Your task to perform on an android device: find which apps use the phone's location Image 0: 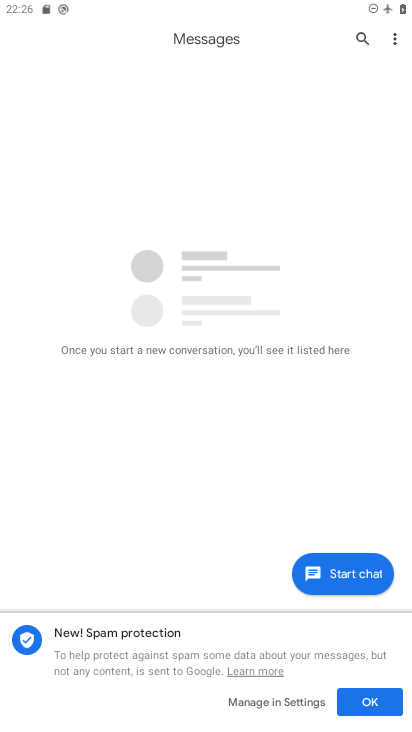
Step 0: press home button
Your task to perform on an android device: find which apps use the phone's location Image 1: 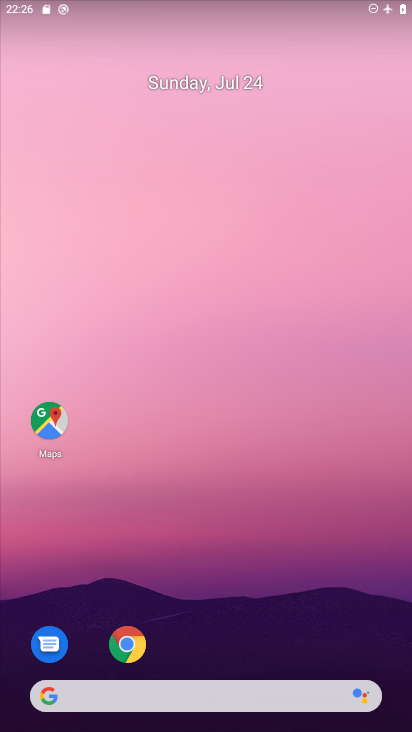
Step 1: drag from (344, 648) to (318, 73)
Your task to perform on an android device: find which apps use the phone's location Image 2: 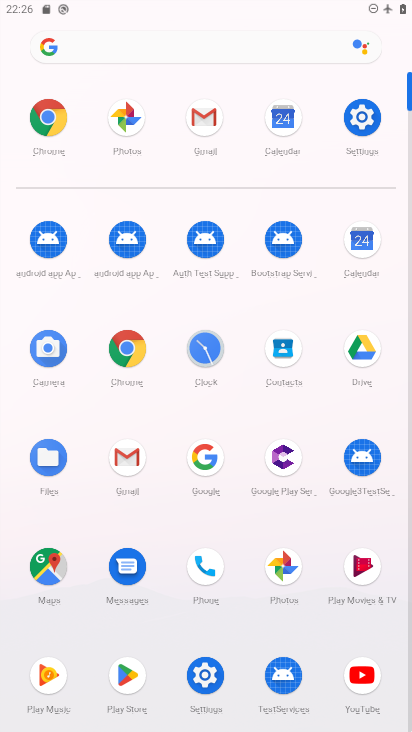
Step 2: click (205, 674)
Your task to perform on an android device: find which apps use the phone's location Image 3: 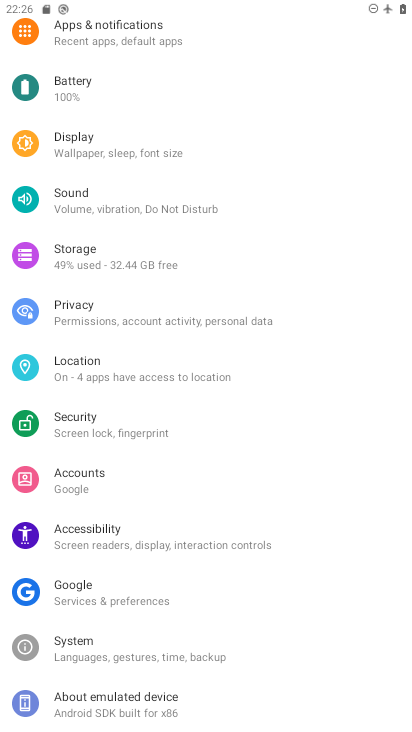
Step 3: click (71, 362)
Your task to perform on an android device: find which apps use the phone's location Image 4: 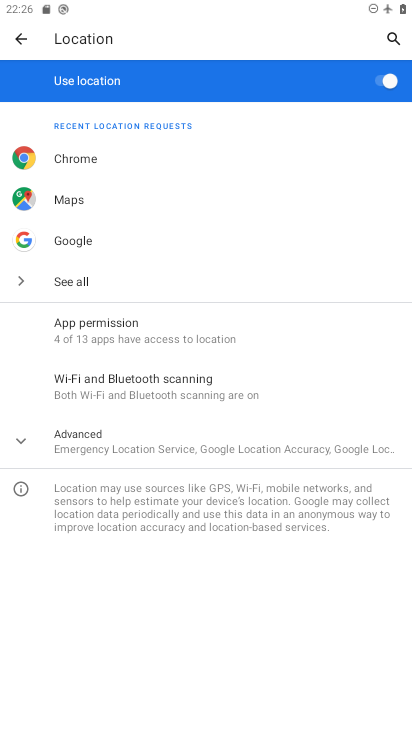
Step 4: click (68, 325)
Your task to perform on an android device: find which apps use the phone's location Image 5: 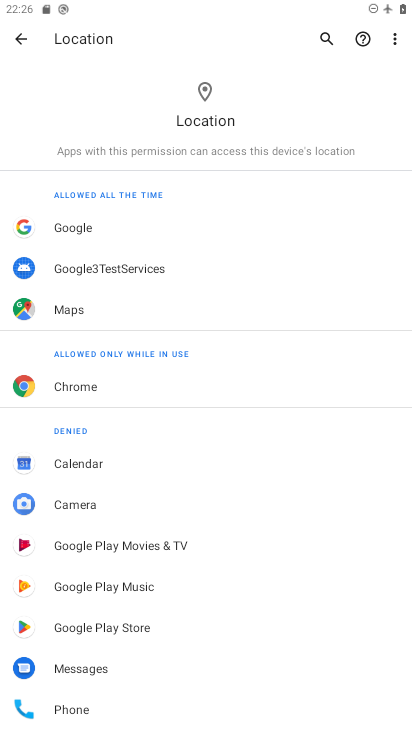
Step 5: drag from (215, 663) to (238, 158)
Your task to perform on an android device: find which apps use the phone's location Image 6: 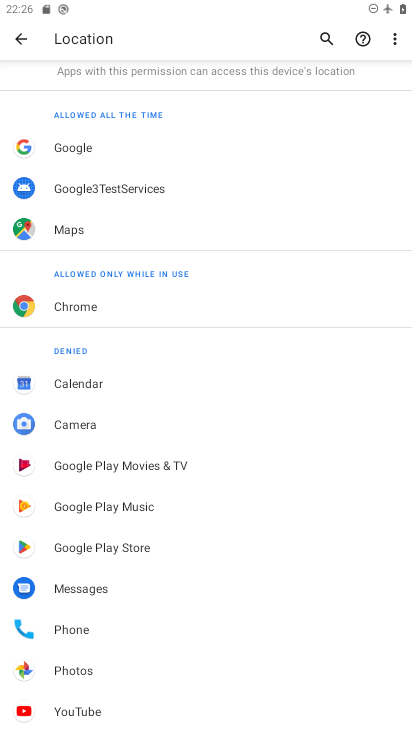
Step 6: click (74, 671)
Your task to perform on an android device: find which apps use the phone's location Image 7: 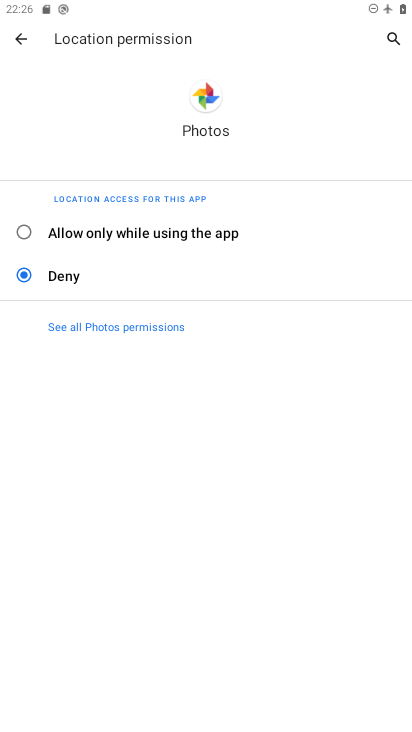
Step 7: task complete